Your task to perform on an android device: allow notifications from all sites in the chrome app Image 0: 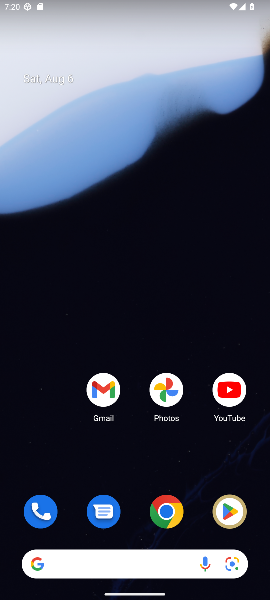
Step 0: click (167, 510)
Your task to perform on an android device: allow notifications from all sites in the chrome app Image 1: 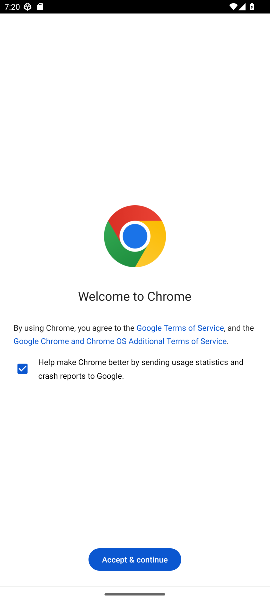
Step 1: click (162, 550)
Your task to perform on an android device: allow notifications from all sites in the chrome app Image 2: 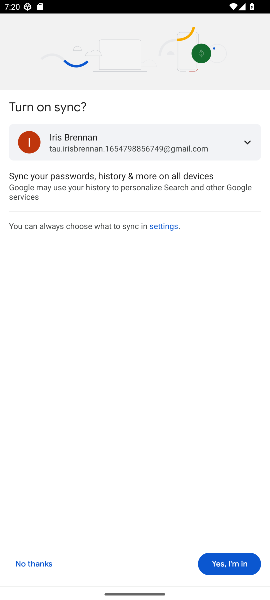
Step 2: click (230, 566)
Your task to perform on an android device: allow notifications from all sites in the chrome app Image 3: 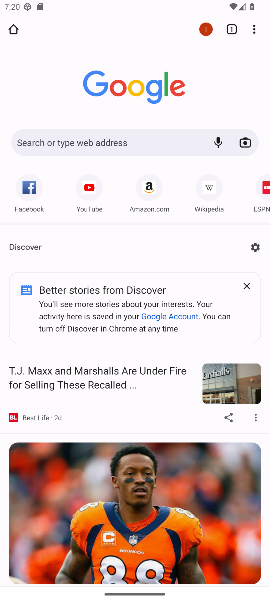
Step 3: click (253, 28)
Your task to perform on an android device: allow notifications from all sites in the chrome app Image 4: 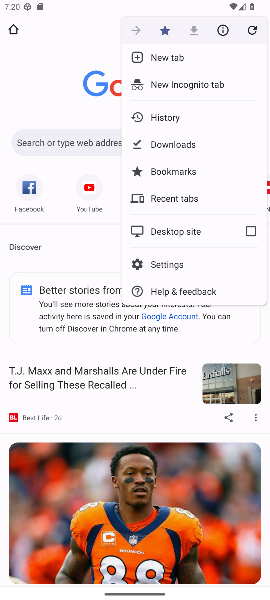
Step 4: click (179, 260)
Your task to perform on an android device: allow notifications from all sites in the chrome app Image 5: 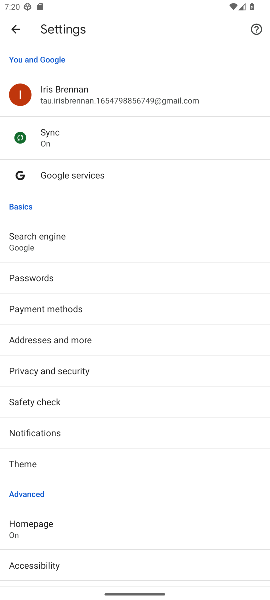
Step 5: click (88, 431)
Your task to perform on an android device: allow notifications from all sites in the chrome app Image 6: 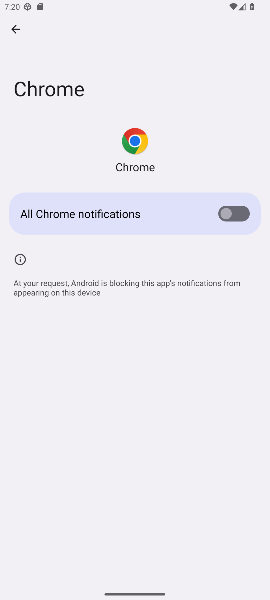
Step 6: click (229, 215)
Your task to perform on an android device: allow notifications from all sites in the chrome app Image 7: 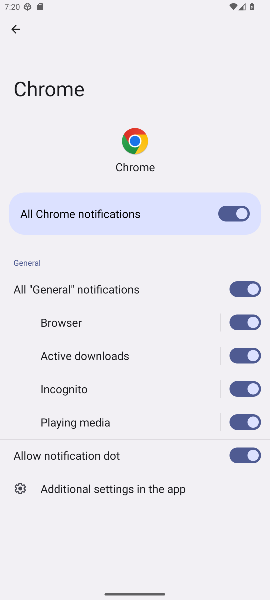
Step 7: task complete